Your task to perform on an android device: change alarm snooze length Image 0: 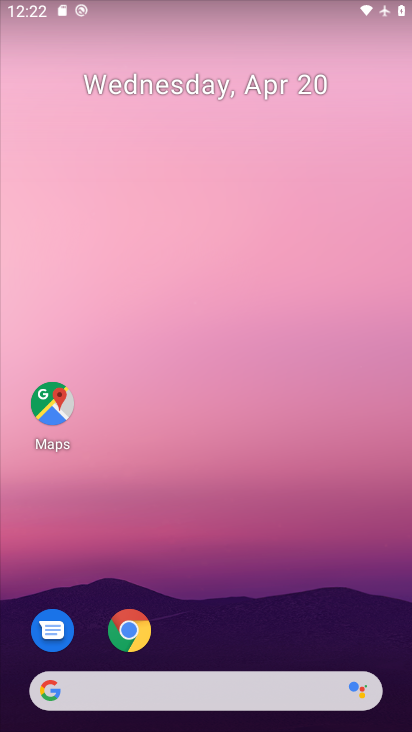
Step 0: drag from (204, 676) to (340, 238)
Your task to perform on an android device: change alarm snooze length Image 1: 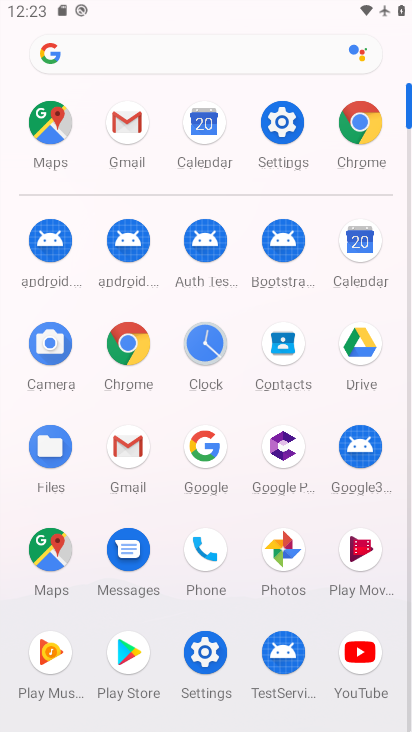
Step 1: click (209, 344)
Your task to perform on an android device: change alarm snooze length Image 2: 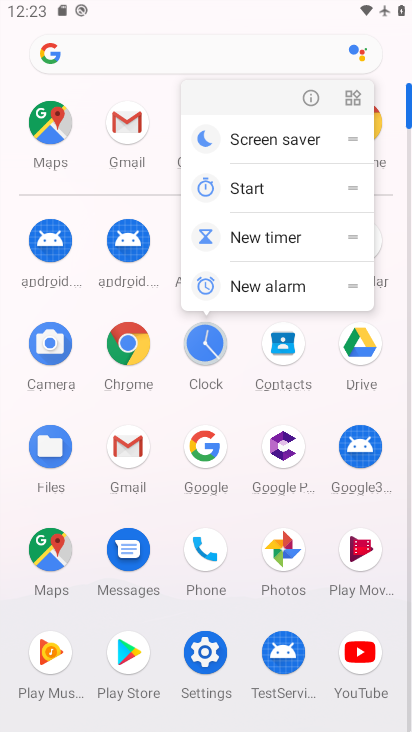
Step 2: click (204, 343)
Your task to perform on an android device: change alarm snooze length Image 3: 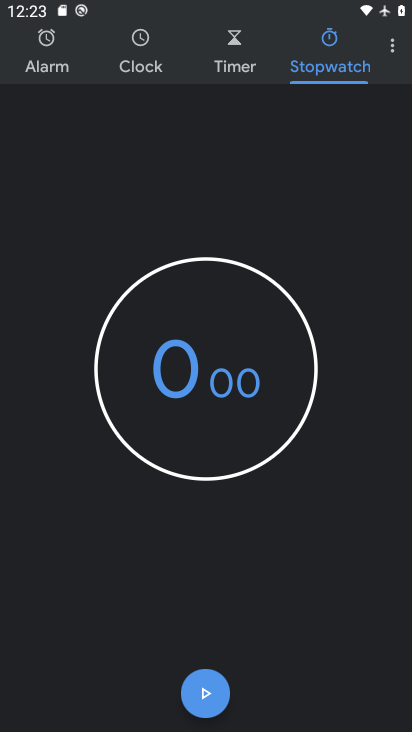
Step 3: click (391, 46)
Your task to perform on an android device: change alarm snooze length Image 4: 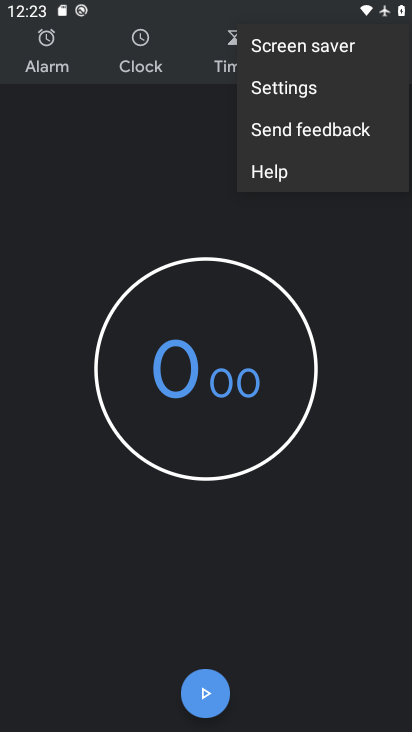
Step 4: click (302, 86)
Your task to perform on an android device: change alarm snooze length Image 5: 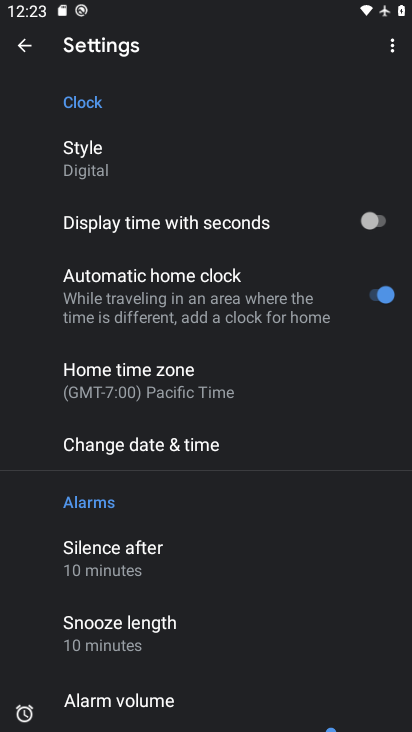
Step 5: drag from (146, 613) to (230, 390)
Your task to perform on an android device: change alarm snooze length Image 6: 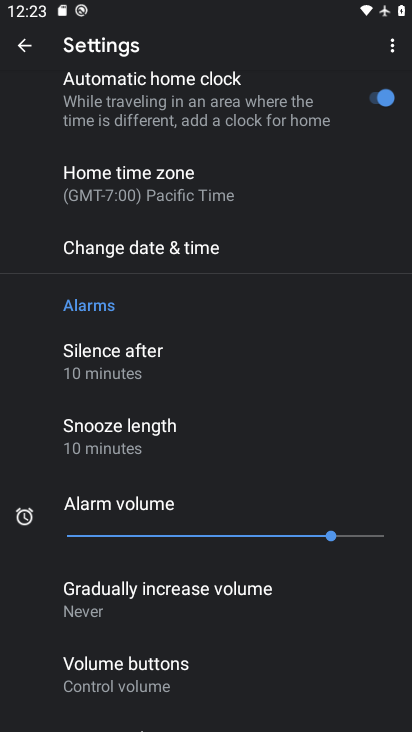
Step 6: click (140, 424)
Your task to perform on an android device: change alarm snooze length Image 7: 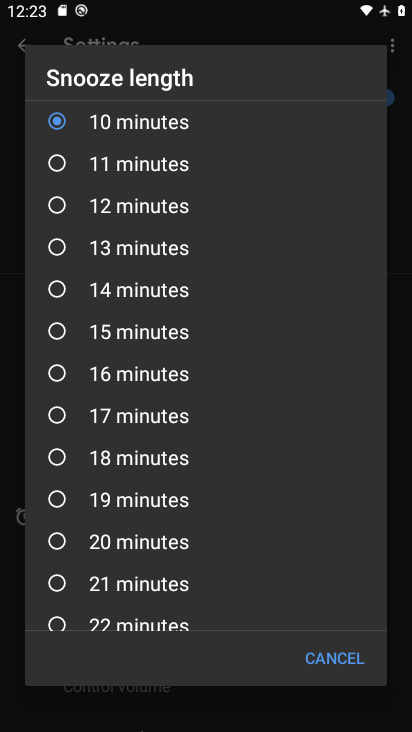
Step 7: click (64, 330)
Your task to perform on an android device: change alarm snooze length Image 8: 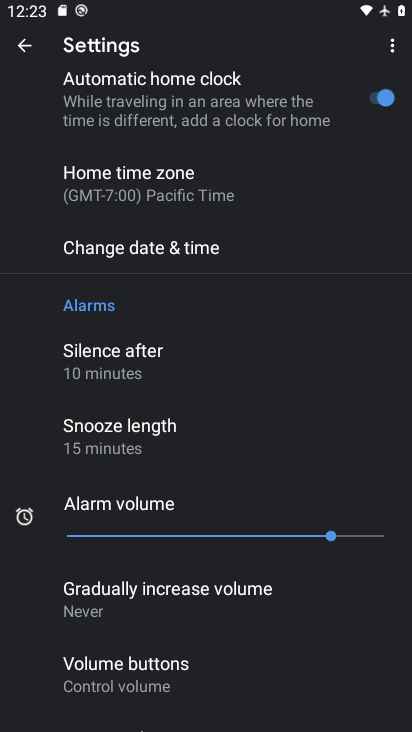
Step 8: task complete